Your task to perform on an android device: Open Chrome and go to settings Image 0: 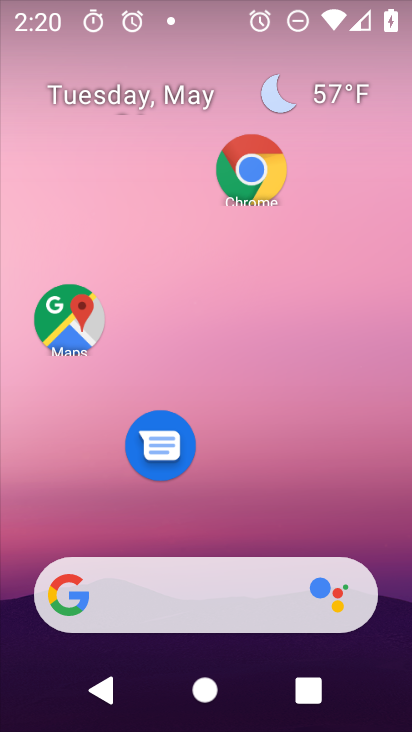
Step 0: click (249, 167)
Your task to perform on an android device: Open Chrome and go to settings Image 1: 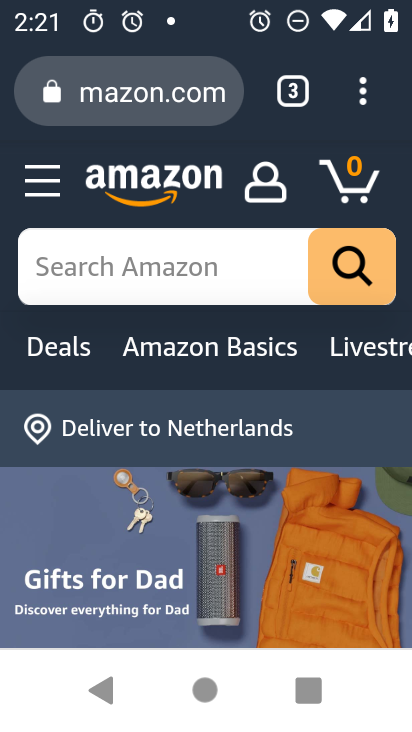
Step 1: click (363, 104)
Your task to perform on an android device: Open Chrome and go to settings Image 2: 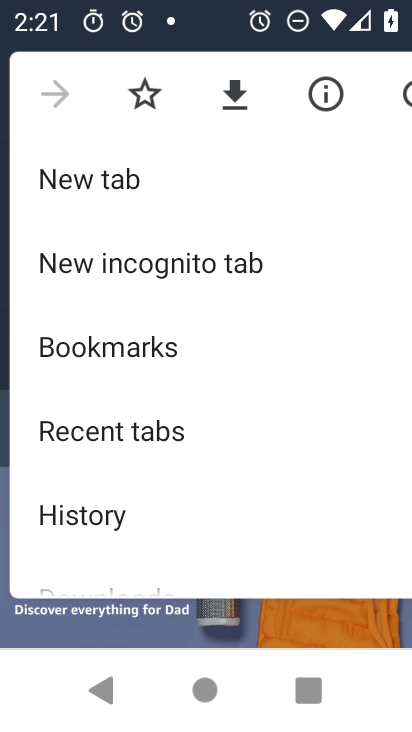
Step 2: drag from (170, 552) to (172, 174)
Your task to perform on an android device: Open Chrome and go to settings Image 3: 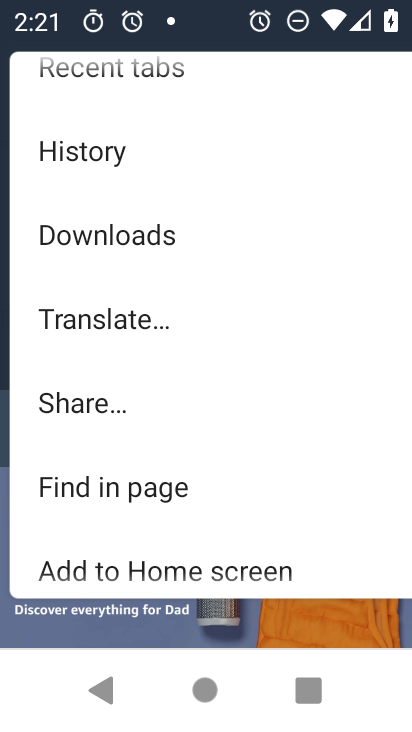
Step 3: drag from (114, 521) to (135, 203)
Your task to perform on an android device: Open Chrome and go to settings Image 4: 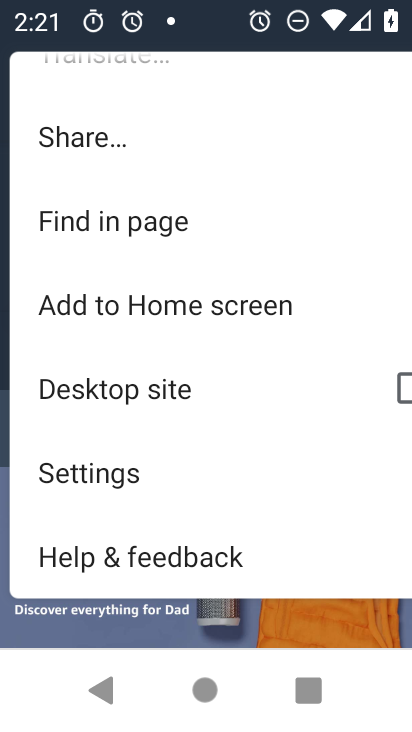
Step 4: click (96, 474)
Your task to perform on an android device: Open Chrome and go to settings Image 5: 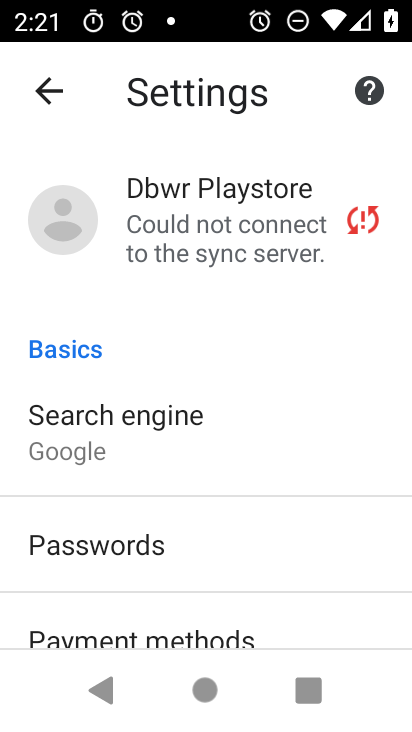
Step 5: task complete